Your task to perform on an android device: Show me popular videos on Youtube Image 0: 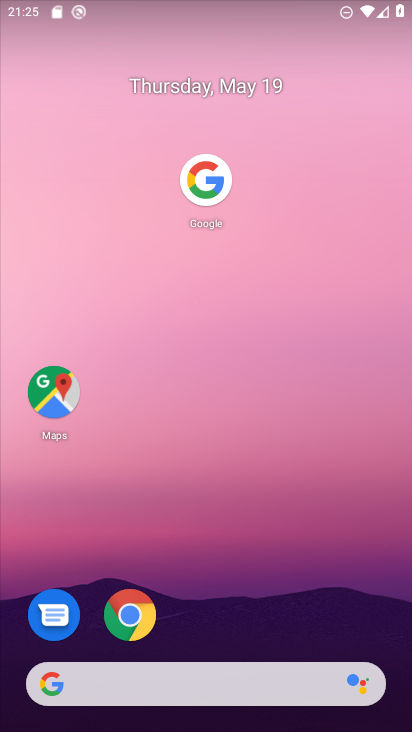
Step 0: drag from (251, 621) to (329, 112)
Your task to perform on an android device: Show me popular videos on Youtube Image 1: 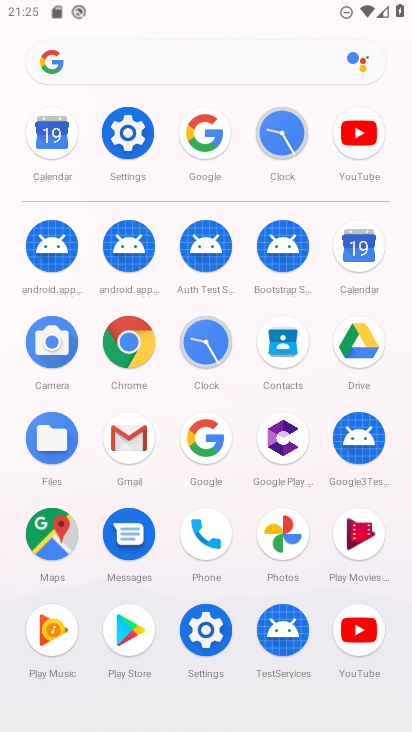
Step 1: click (365, 129)
Your task to perform on an android device: Show me popular videos on Youtube Image 2: 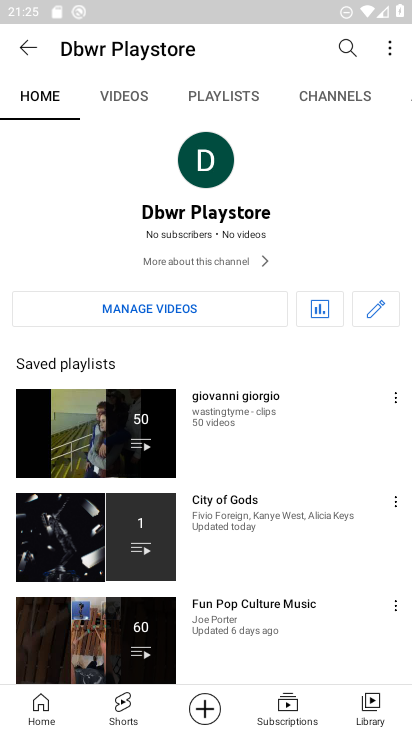
Step 2: click (49, 96)
Your task to perform on an android device: Show me popular videos on Youtube Image 3: 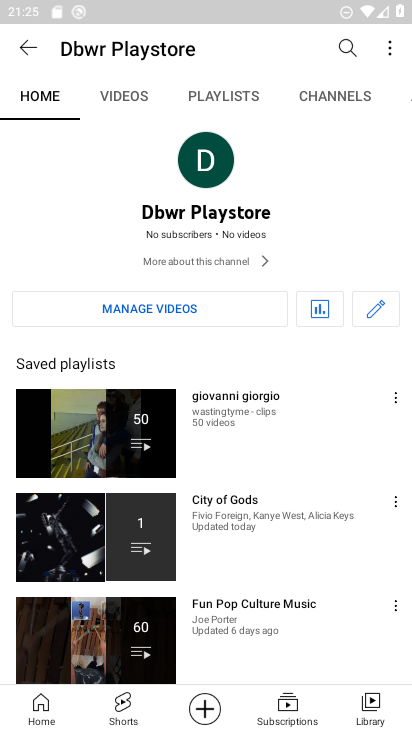
Step 3: click (36, 711)
Your task to perform on an android device: Show me popular videos on Youtube Image 4: 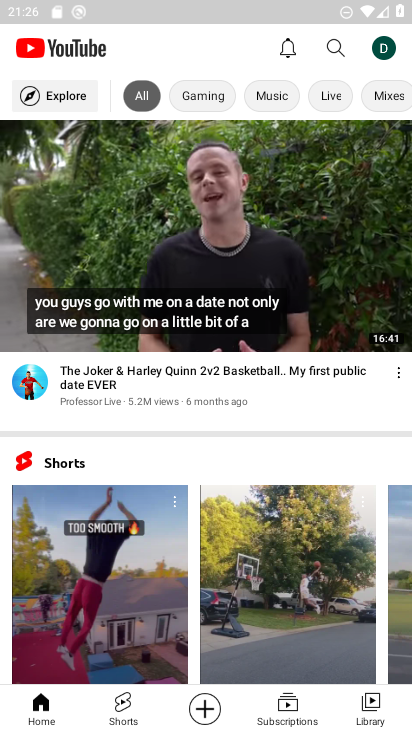
Step 4: task complete